Your task to perform on an android device: When is my next meeting? Image 0: 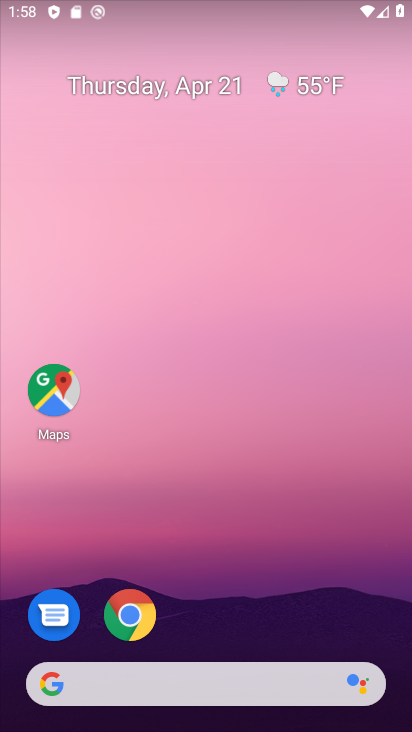
Step 0: drag from (204, 657) to (242, 317)
Your task to perform on an android device: When is my next meeting? Image 1: 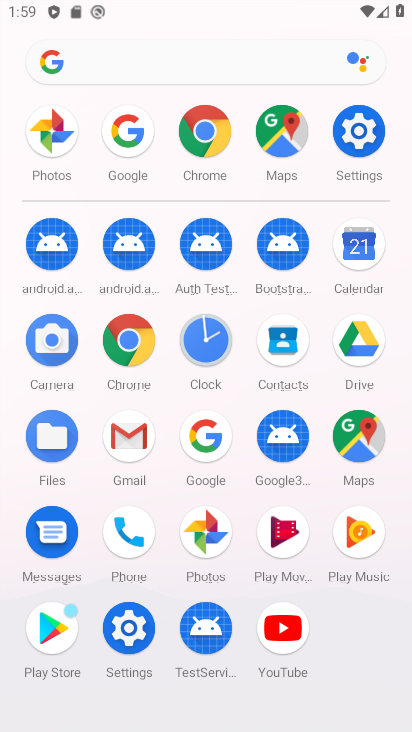
Step 1: click (357, 255)
Your task to perform on an android device: When is my next meeting? Image 2: 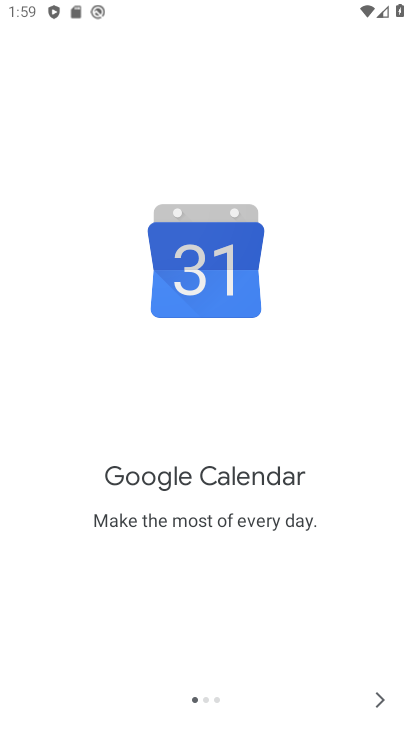
Step 2: click (381, 699)
Your task to perform on an android device: When is my next meeting? Image 3: 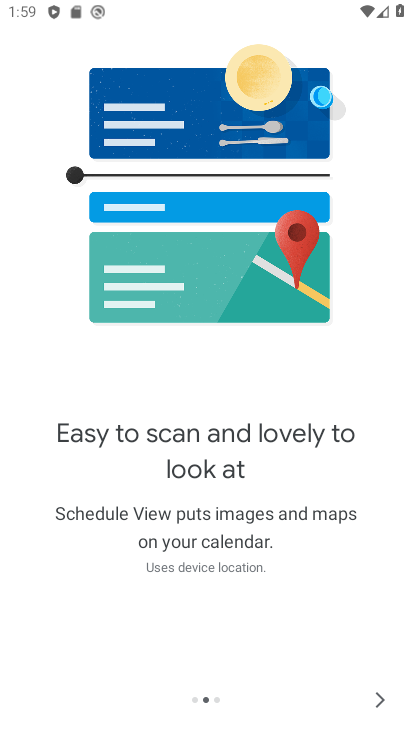
Step 3: click (381, 699)
Your task to perform on an android device: When is my next meeting? Image 4: 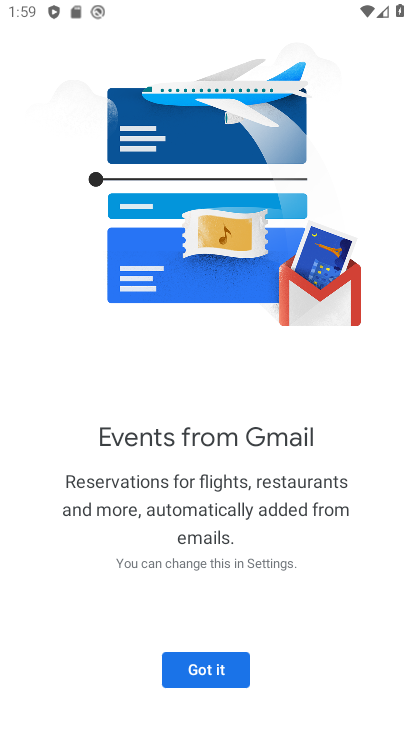
Step 4: click (180, 668)
Your task to perform on an android device: When is my next meeting? Image 5: 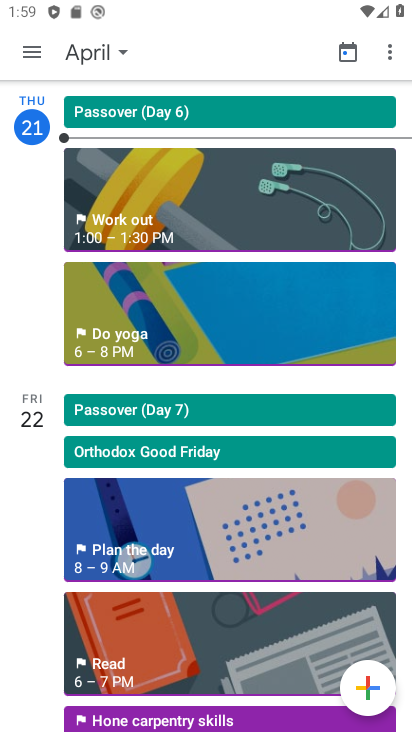
Step 5: click (28, 53)
Your task to perform on an android device: When is my next meeting? Image 6: 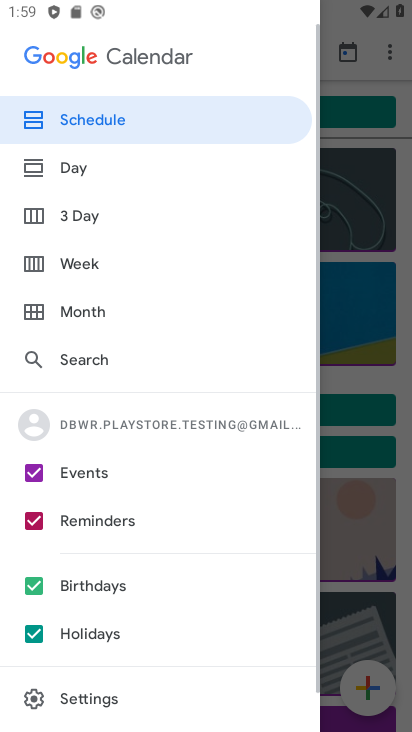
Step 6: click (92, 127)
Your task to perform on an android device: When is my next meeting? Image 7: 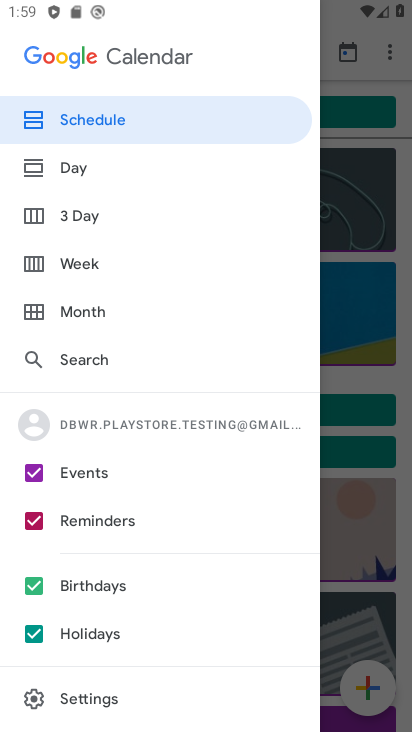
Step 7: click (92, 127)
Your task to perform on an android device: When is my next meeting? Image 8: 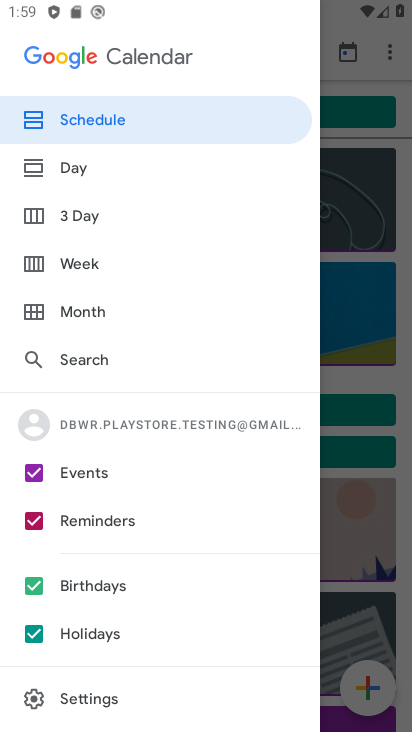
Step 8: click (92, 127)
Your task to perform on an android device: When is my next meeting? Image 9: 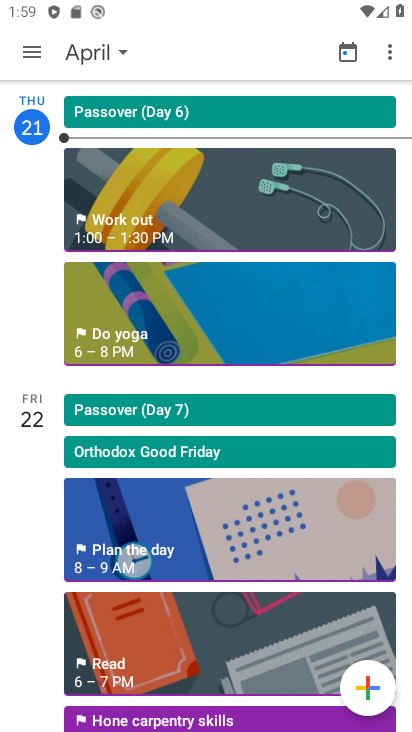
Step 9: task complete